Your task to perform on an android device: Open network settings Image 0: 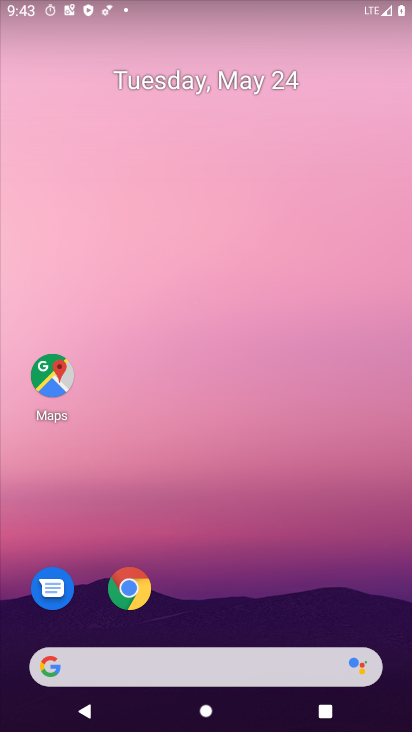
Step 0: drag from (224, 624) to (284, 57)
Your task to perform on an android device: Open network settings Image 1: 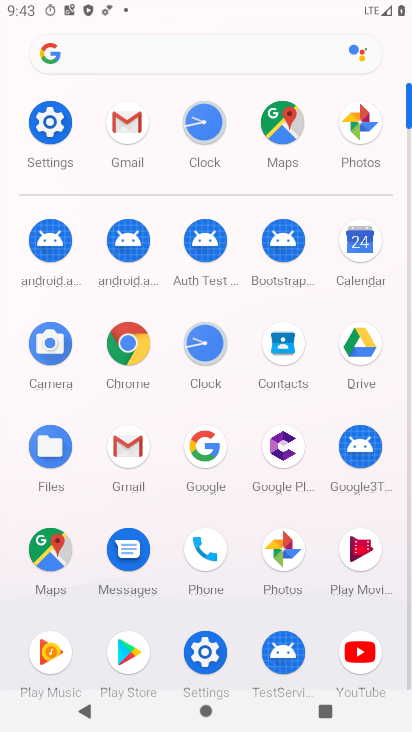
Step 1: click (56, 115)
Your task to perform on an android device: Open network settings Image 2: 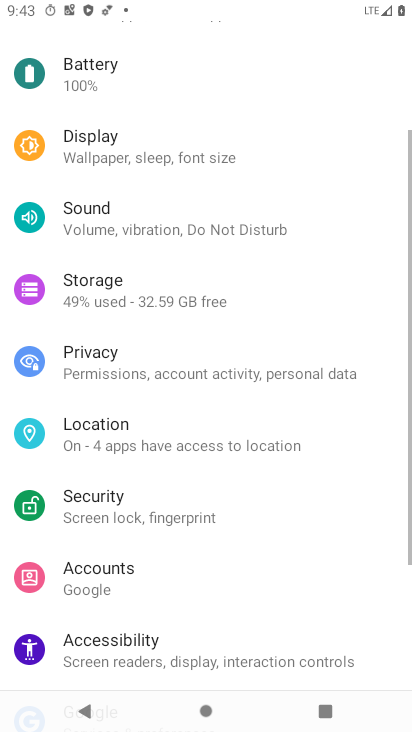
Step 2: drag from (292, 193) to (221, 669)
Your task to perform on an android device: Open network settings Image 3: 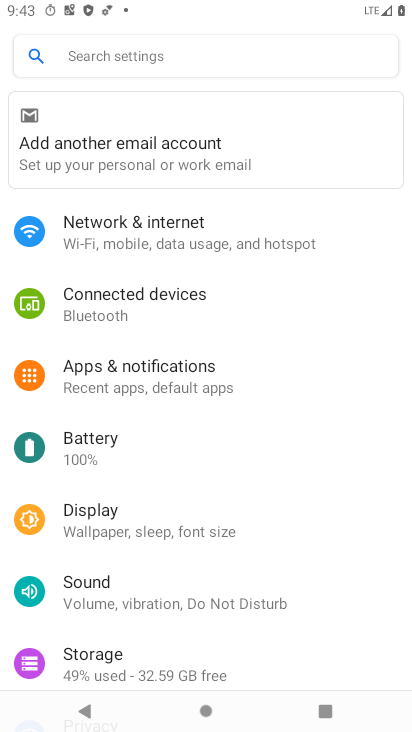
Step 3: click (202, 226)
Your task to perform on an android device: Open network settings Image 4: 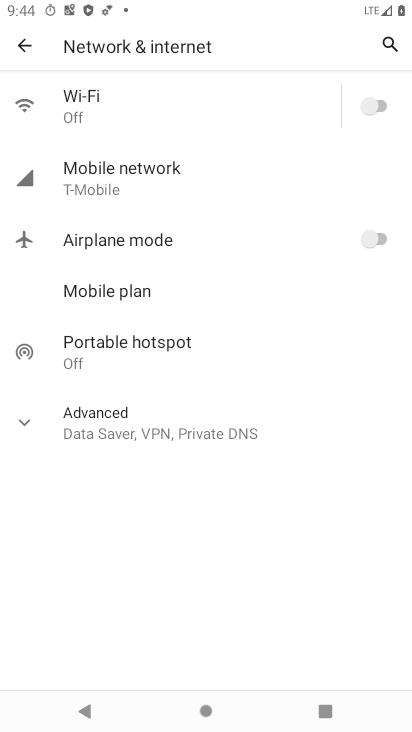
Step 4: task complete